Your task to perform on an android device: Go to Yahoo.com Image 0: 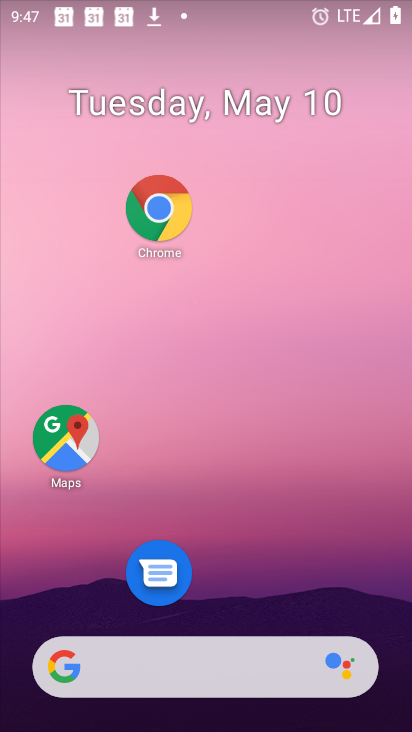
Step 0: drag from (286, 662) to (287, 217)
Your task to perform on an android device: Go to Yahoo.com Image 1: 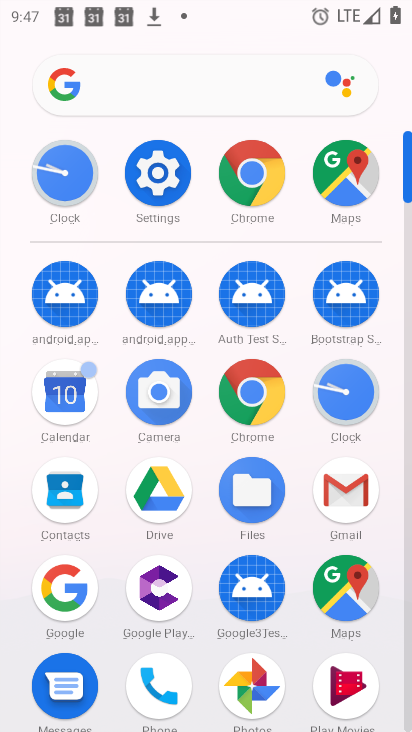
Step 1: click (263, 194)
Your task to perform on an android device: Go to Yahoo.com Image 2: 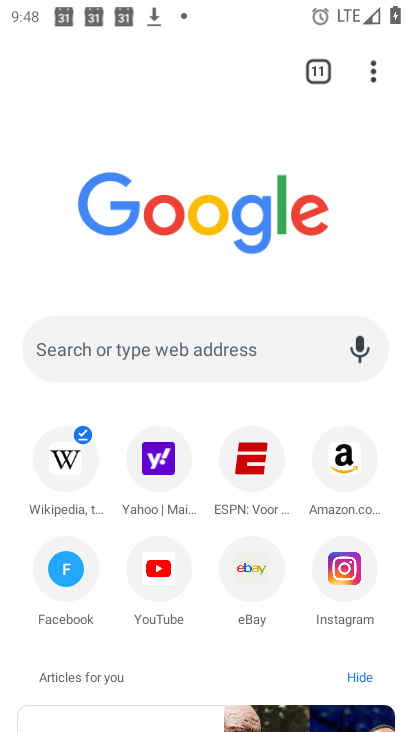
Step 2: click (149, 452)
Your task to perform on an android device: Go to Yahoo.com Image 3: 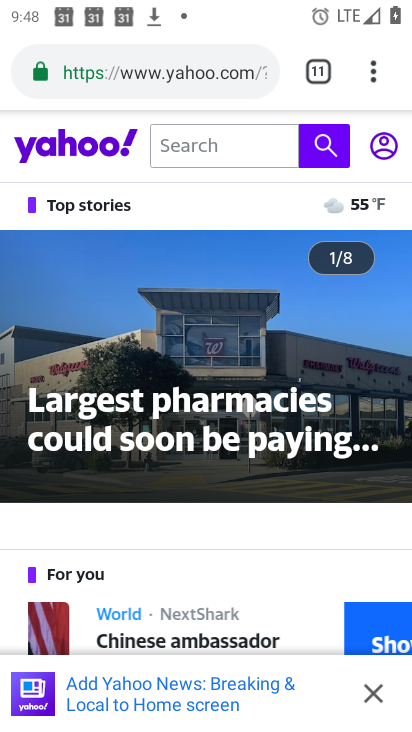
Step 3: task complete